Your task to perform on an android device: turn on airplane mode Image 0: 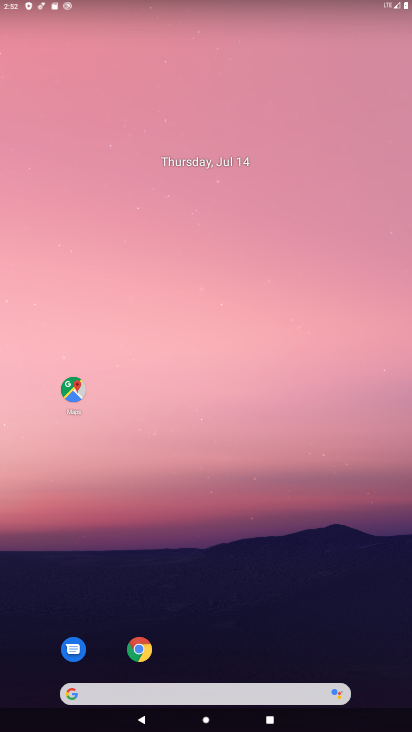
Step 0: drag from (196, 119) to (264, 19)
Your task to perform on an android device: turn on airplane mode Image 1: 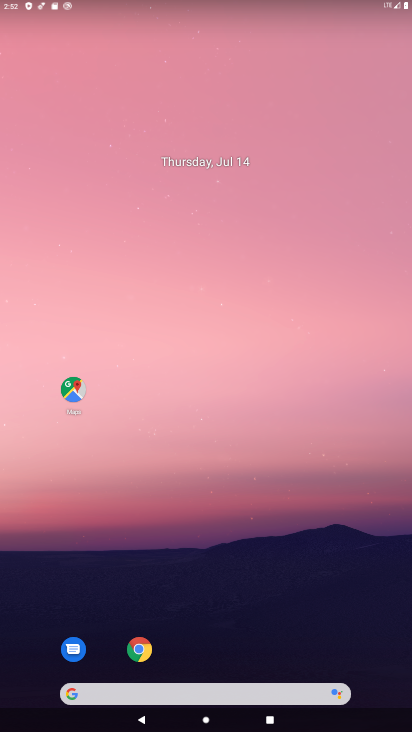
Step 1: drag from (252, 667) to (278, 20)
Your task to perform on an android device: turn on airplane mode Image 2: 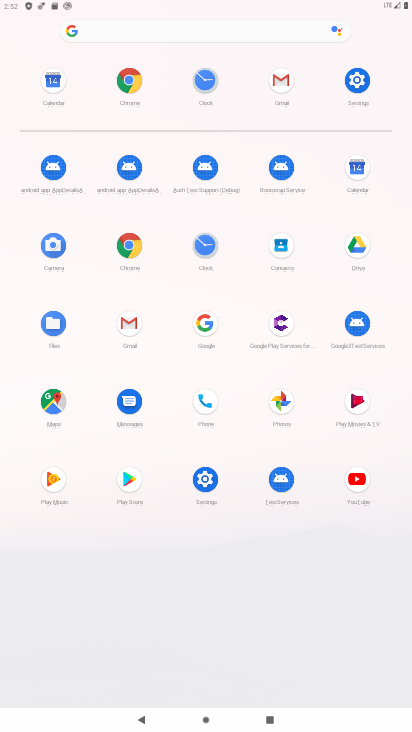
Step 2: click (357, 85)
Your task to perform on an android device: turn on airplane mode Image 3: 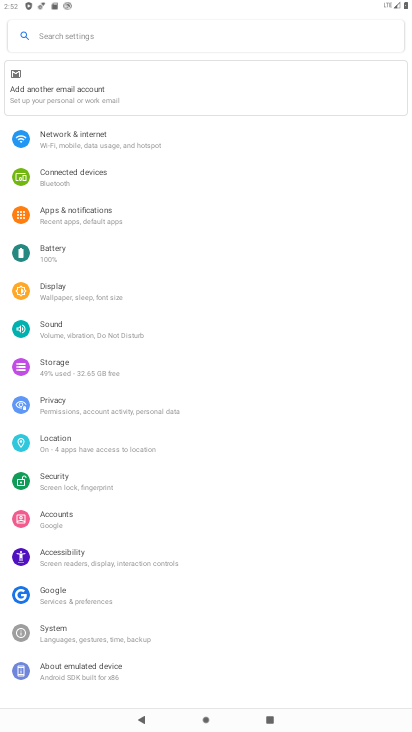
Step 3: click (107, 136)
Your task to perform on an android device: turn on airplane mode Image 4: 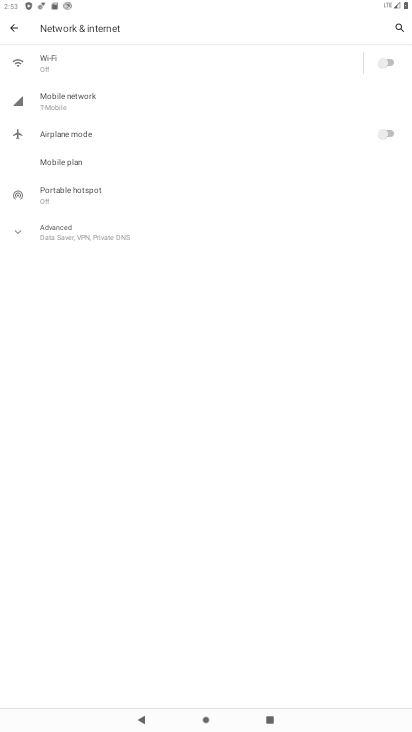
Step 4: click (387, 128)
Your task to perform on an android device: turn on airplane mode Image 5: 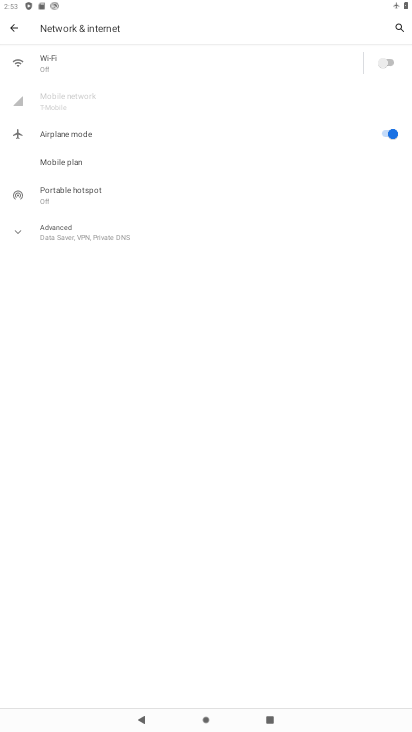
Step 5: task complete